Your task to perform on an android device: Open the phone app and click the voicemail tab. Image 0: 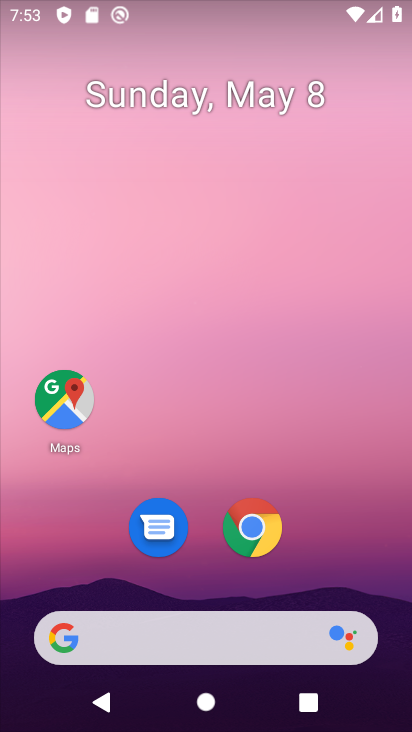
Step 0: drag from (342, 534) to (310, 0)
Your task to perform on an android device: Open the phone app and click the voicemail tab. Image 1: 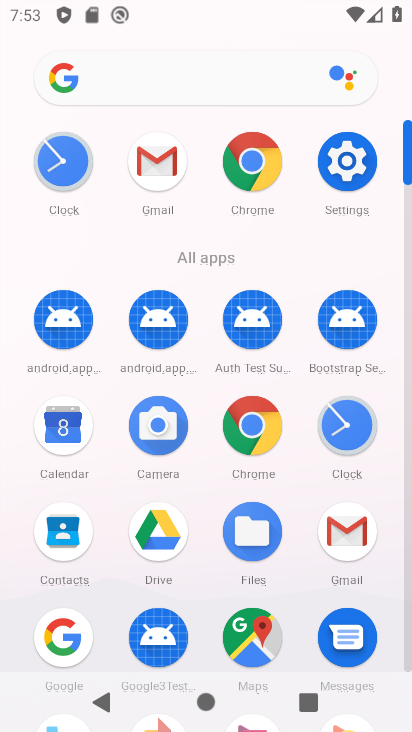
Step 1: drag from (1, 549) to (4, 299)
Your task to perform on an android device: Open the phone app and click the voicemail tab. Image 2: 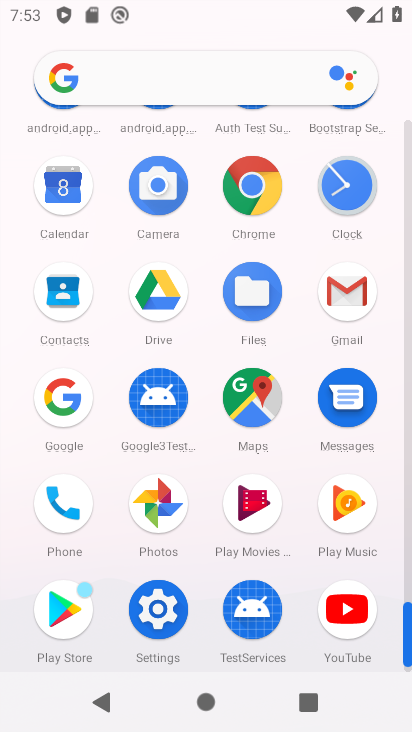
Step 2: click (62, 502)
Your task to perform on an android device: Open the phone app and click the voicemail tab. Image 3: 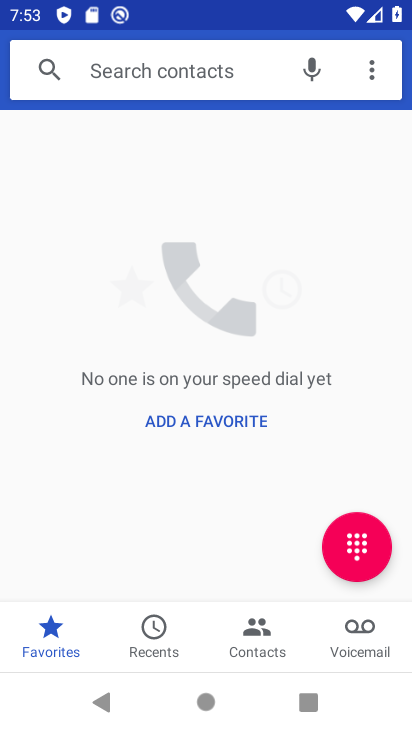
Step 3: click (357, 643)
Your task to perform on an android device: Open the phone app and click the voicemail tab. Image 4: 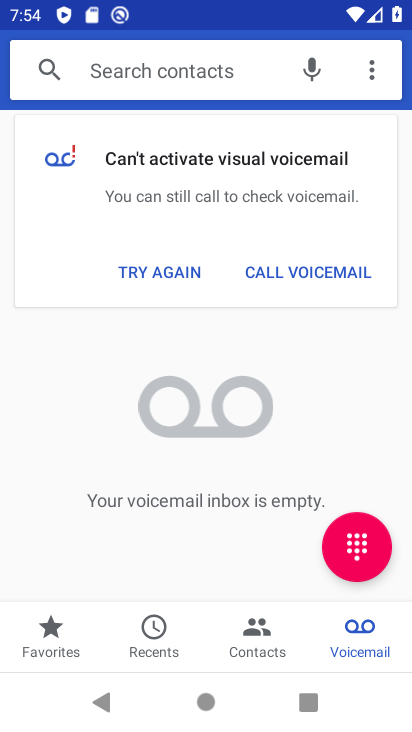
Step 4: task complete